Your task to perform on an android device: change keyboard looks Image 0: 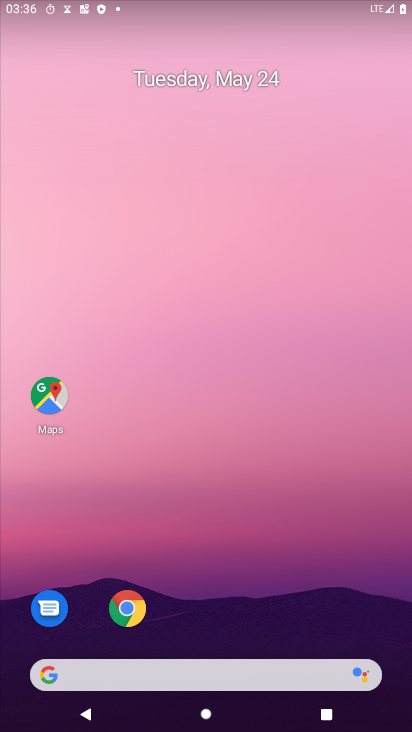
Step 0: drag from (217, 641) to (141, 203)
Your task to perform on an android device: change keyboard looks Image 1: 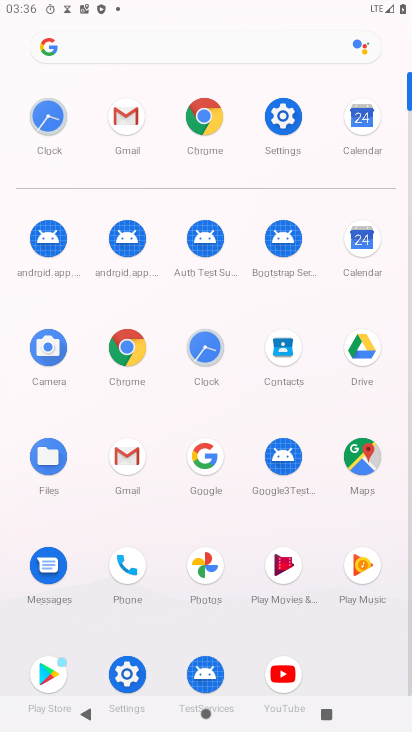
Step 1: click (289, 129)
Your task to perform on an android device: change keyboard looks Image 2: 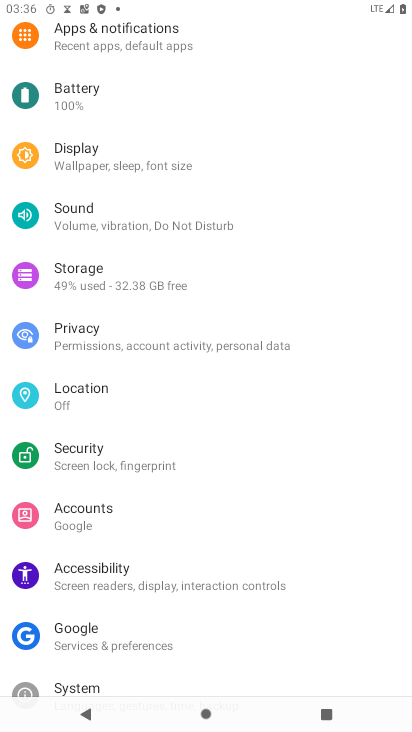
Step 2: drag from (196, 634) to (154, 341)
Your task to perform on an android device: change keyboard looks Image 3: 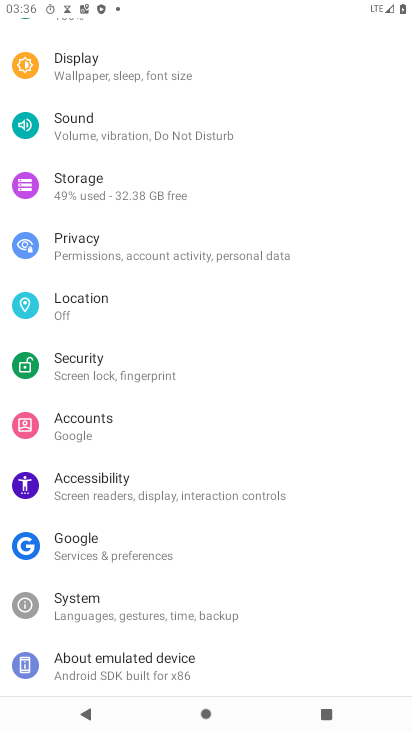
Step 3: click (175, 607)
Your task to perform on an android device: change keyboard looks Image 4: 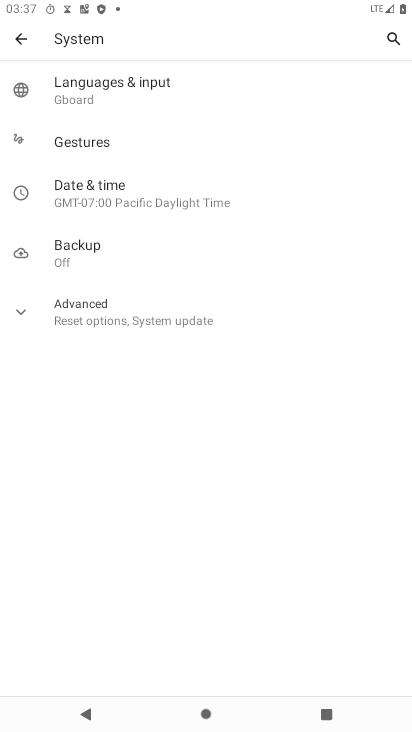
Step 4: click (165, 96)
Your task to perform on an android device: change keyboard looks Image 5: 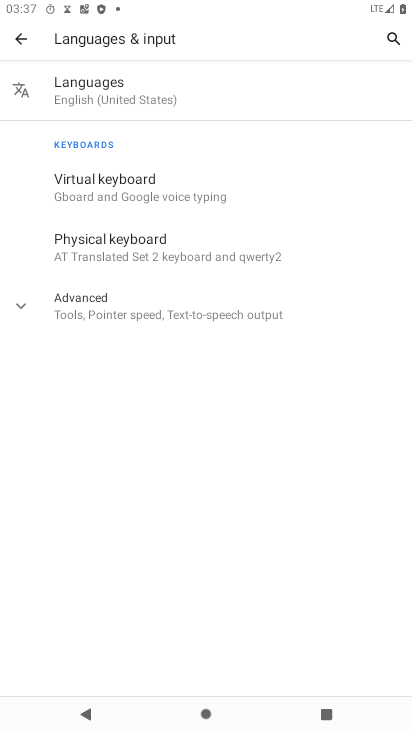
Step 5: click (159, 192)
Your task to perform on an android device: change keyboard looks Image 6: 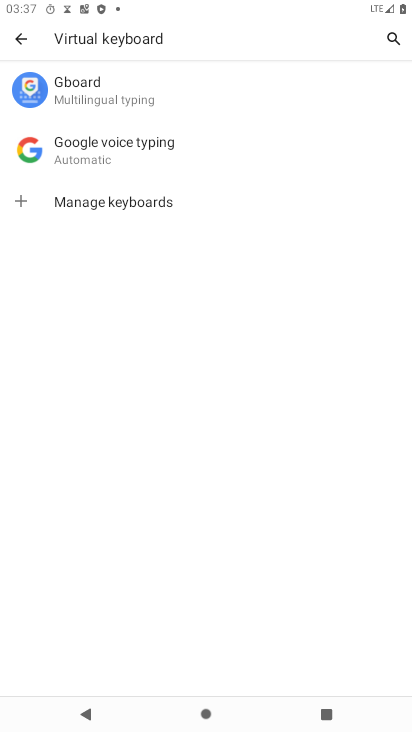
Step 6: click (124, 101)
Your task to perform on an android device: change keyboard looks Image 7: 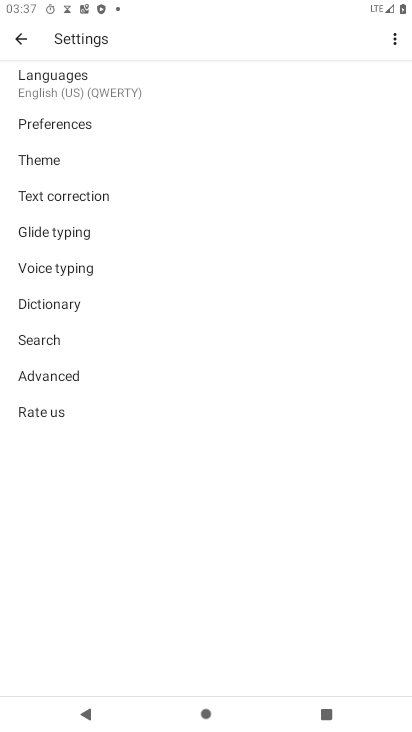
Step 7: click (109, 156)
Your task to perform on an android device: change keyboard looks Image 8: 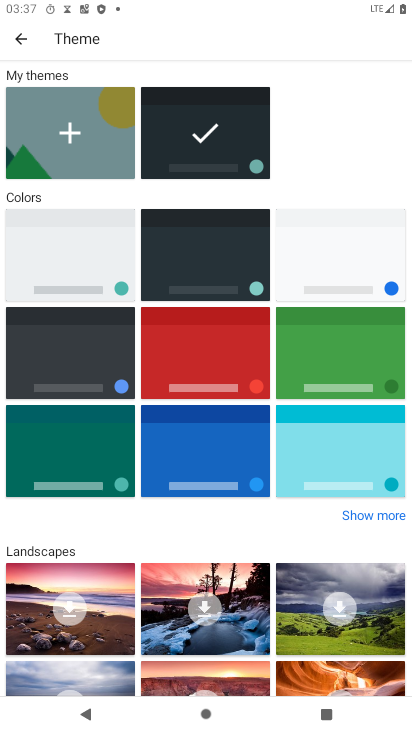
Step 8: click (168, 236)
Your task to perform on an android device: change keyboard looks Image 9: 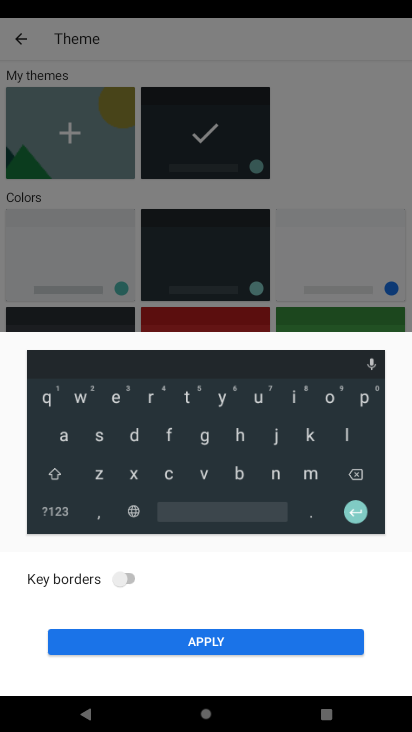
Step 9: click (247, 642)
Your task to perform on an android device: change keyboard looks Image 10: 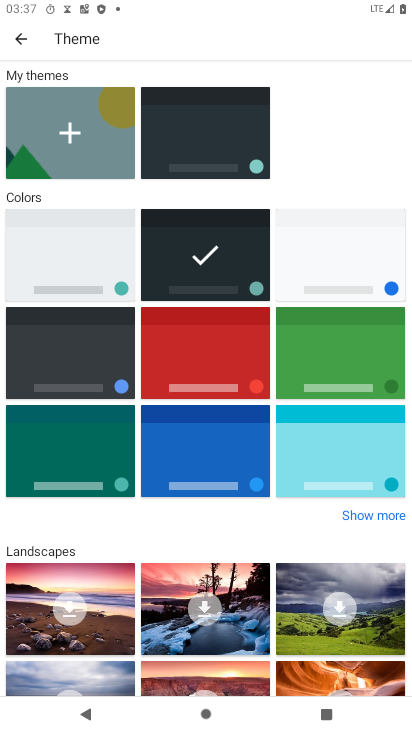
Step 10: task complete